Your task to perform on an android device: Open battery settings Image 0: 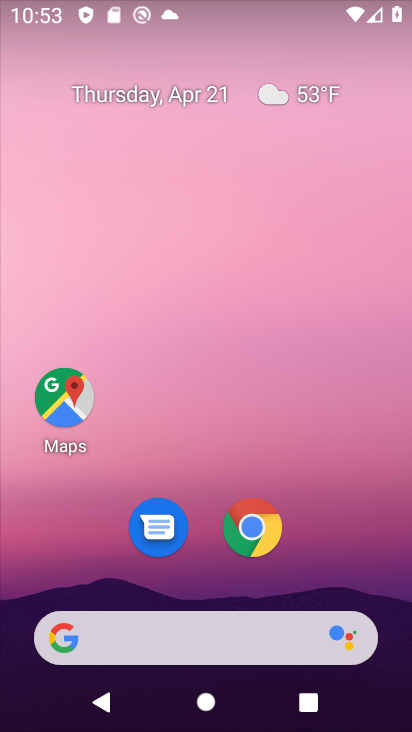
Step 0: drag from (350, 540) to (353, 116)
Your task to perform on an android device: Open battery settings Image 1: 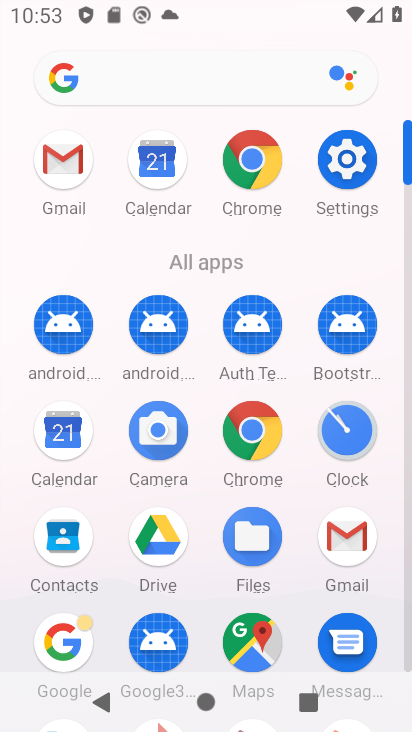
Step 1: click (352, 167)
Your task to perform on an android device: Open battery settings Image 2: 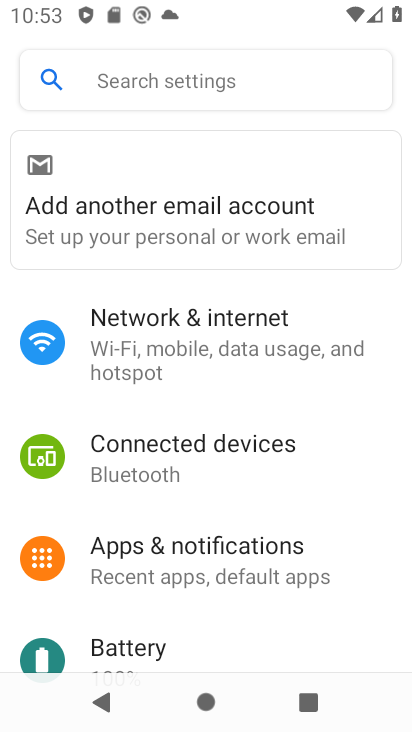
Step 2: drag from (364, 527) to (362, 362)
Your task to perform on an android device: Open battery settings Image 3: 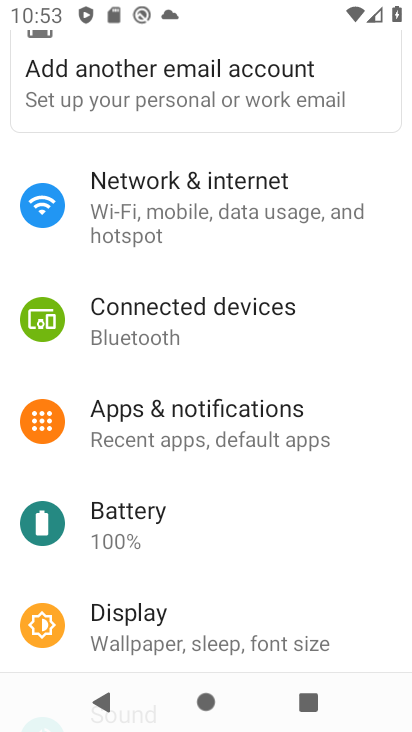
Step 3: drag from (368, 544) to (364, 343)
Your task to perform on an android device: Open battery settings Image 4: 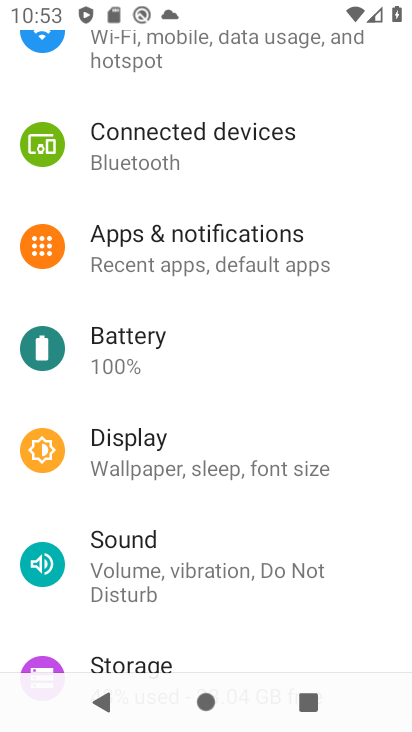
Step 4: drag from (359, 573) to (371, 337)
Your task to perform on an android device: Open battery settings Image 5: 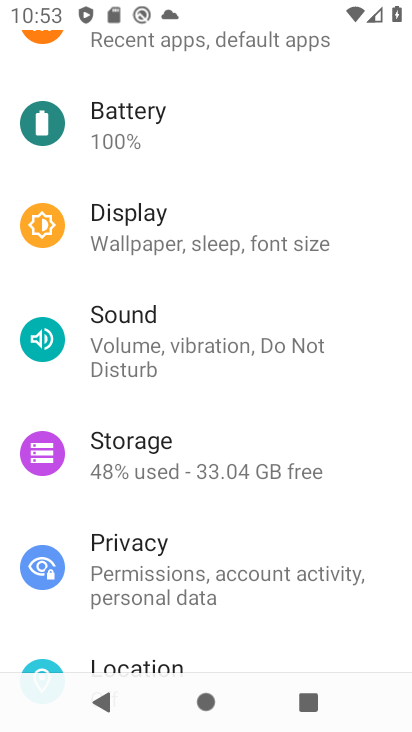
Step 5: drag from (377, 595) to (371, 349)
Your task to perform on an android device: Open battery settings Image 6: 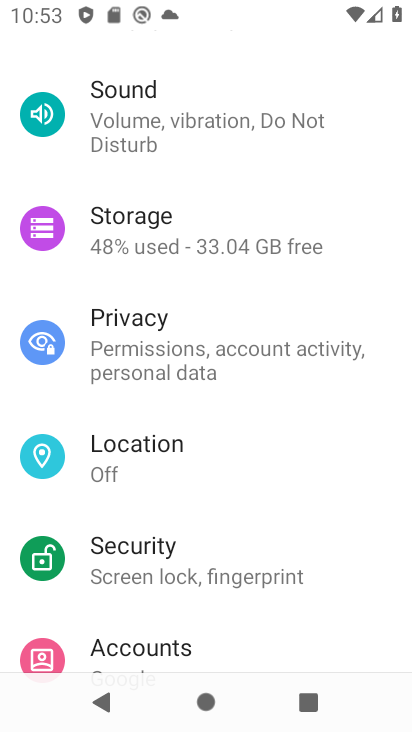
Step 6: drag from (368, 558) to (361, 362)
Your task to perform on an android device: Open battery settings Image 7: 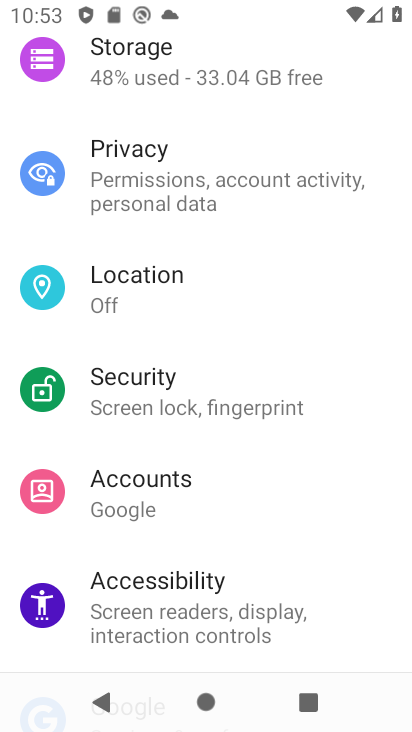
Step 7: drag from (343, 257) to (320, 423)
Your task to perform on an android device: Open battery settings Image 8: 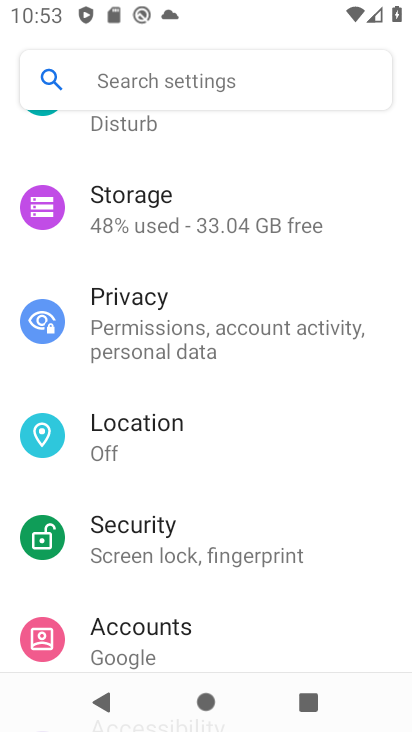
Step 8: drag from (363, 233) to (361, 454)
Your task to perform on an android device: Open battery settings Image 9: 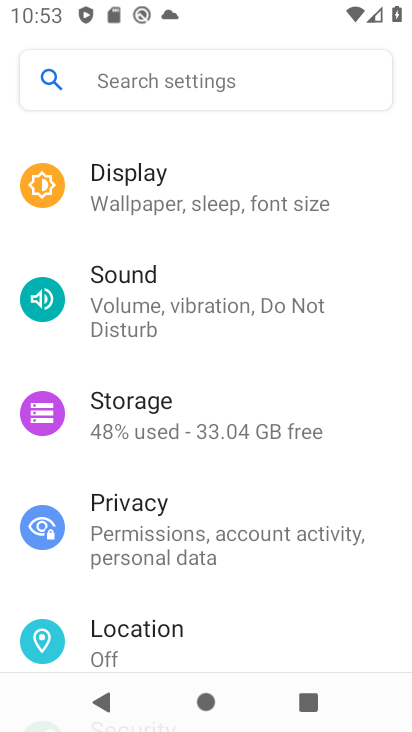
Step 9: drag from (374, 235) to (366, 421)
Your task to perform on an android device: Open battery settings Image 10: 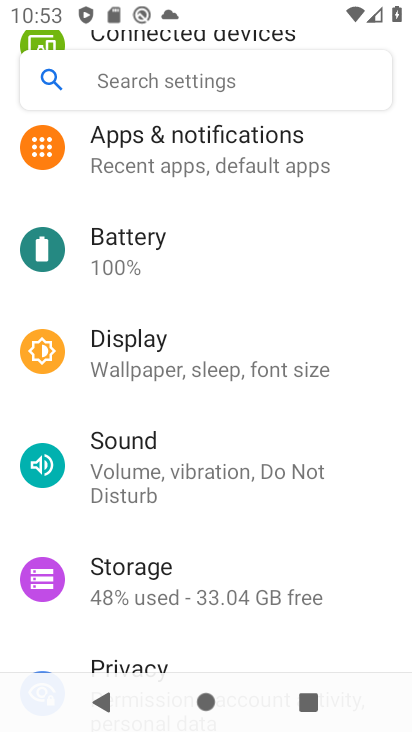
Step 10: drag from (355, 237) to (351, 410)
Your task to perform on an android device: Open battery settings Image 11: 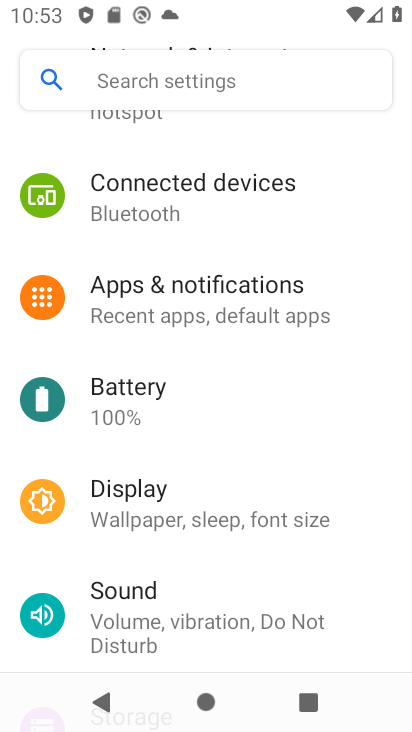
Step 11: click (130, 402)
Your task to perform on an android device: Open battery settings Image 12: 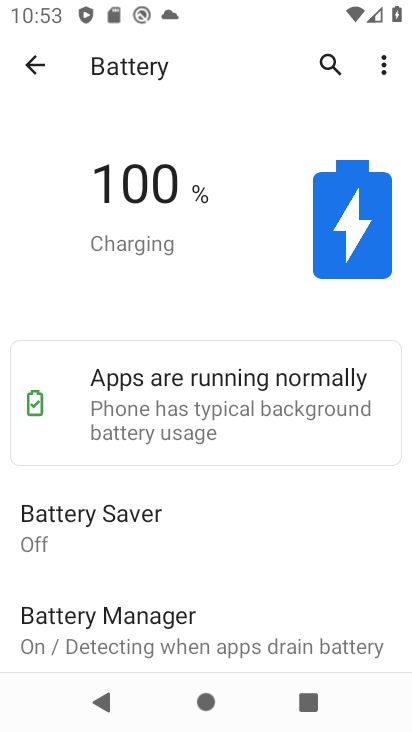
Step 12: task complete